Your task to perform on an android device: Search for seafood restaurants on Google Maps Image 0: 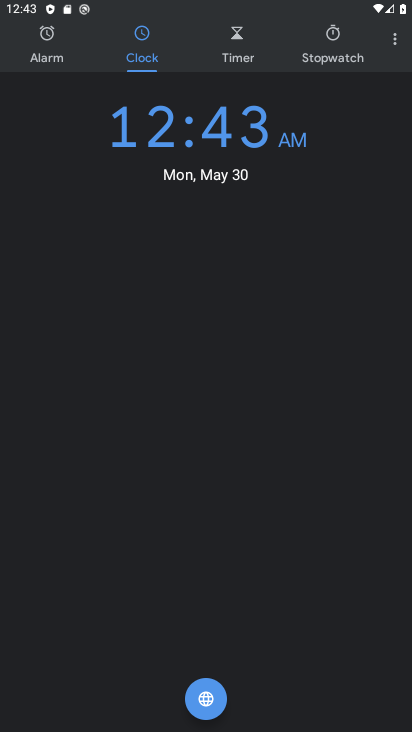
Step 0: press home button
Your task to perform on an android device: Search for seafood restaurants on Google Maps Image 1: 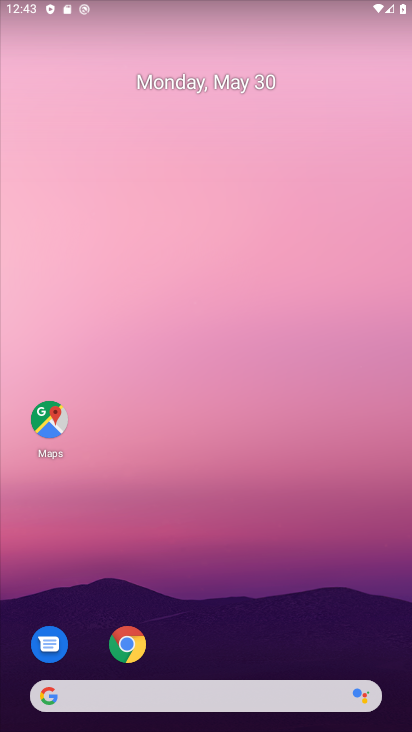
Step 1: drag from (353, 598) to (334, 199)
Your task to perform on an android device: Search for seafood restaurants on Google Maps Image 2: 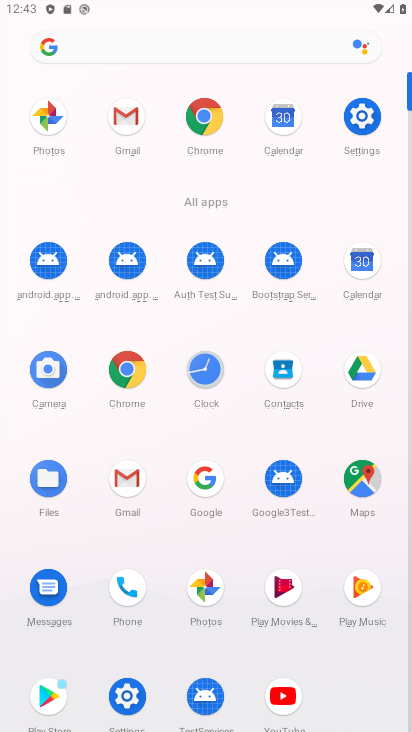
Step 2: click (373, 457)
Your task to perform on an android device: Search for seafood restaurants on Google Maps Image 3: 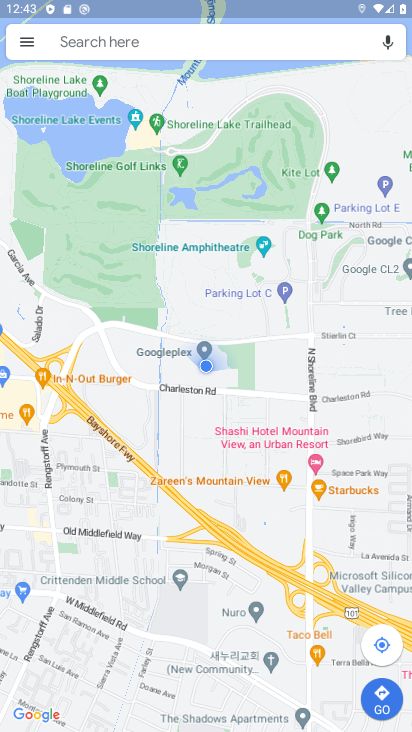
Step 3: click (149, 37)
Your task to perform on an android device: Search for seafood restaurants on Google Maps Image 4: 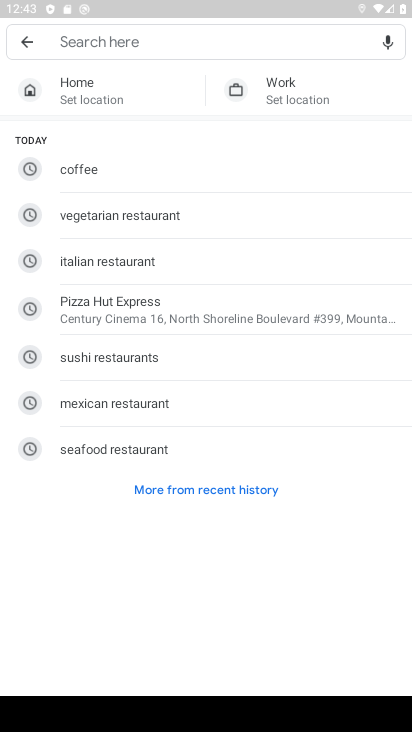
Step 4: click (90, 449)
Your task to perform on an android device: Search for seafood restaurants on Google Maps Image 5: 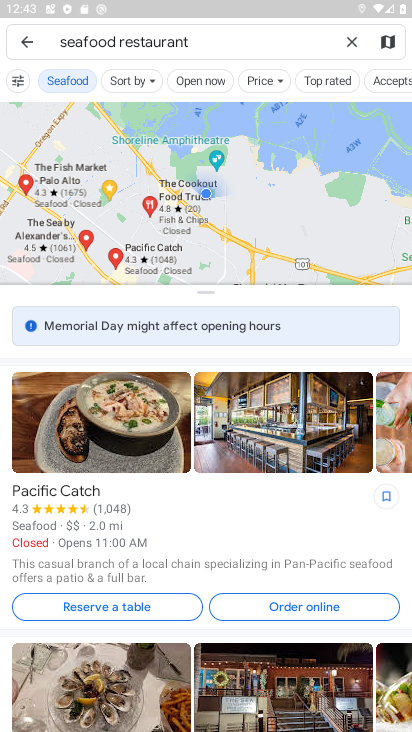
Step 5: task complete